Your task to perform on an android device: refresh tabs in the chrome app Image 0: 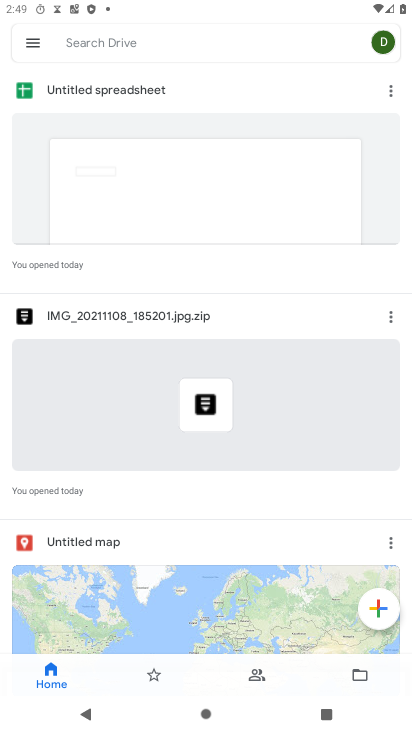
Step 0: press home button
Your task to perform on an android device: refresh tabs in the chrome app Image 1: 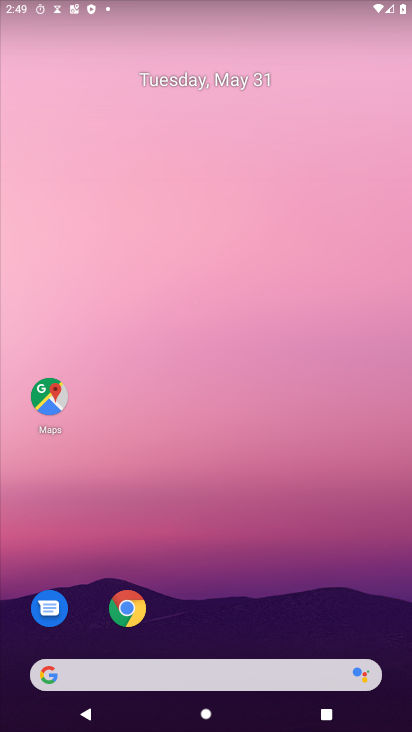
Step 1: click (125, 604)
Your task to perform on an android device: refresh tabs in the chrome app Image 2: 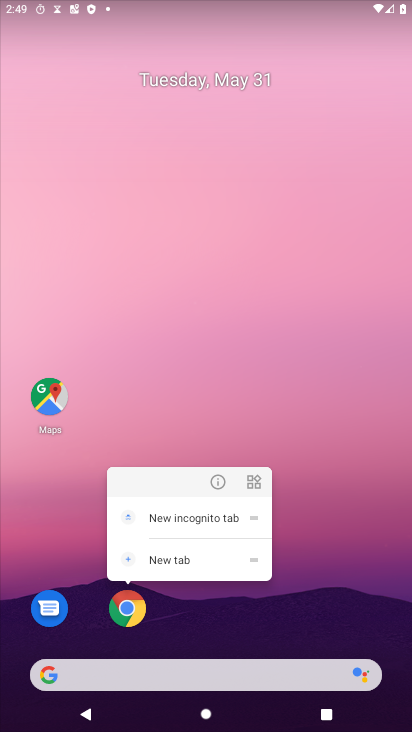
Step 2: click (124, 603)
Your task to perform on an android device: refresh tabs in the chrome app Image 3: 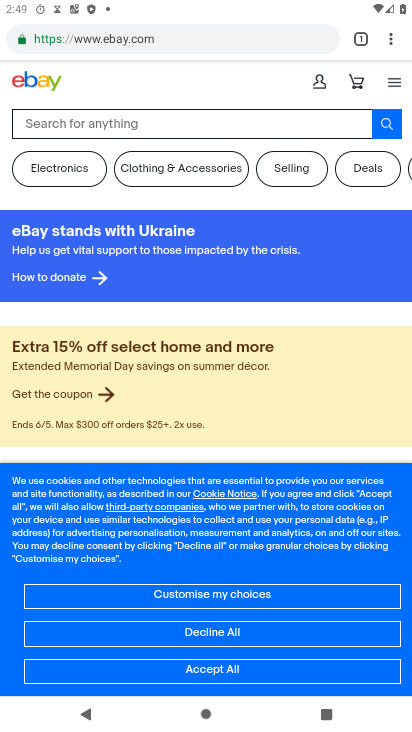
Step 3: click (391, 34)
Your task to perform on an android device: refresh tabs in the chrome app Image 4: 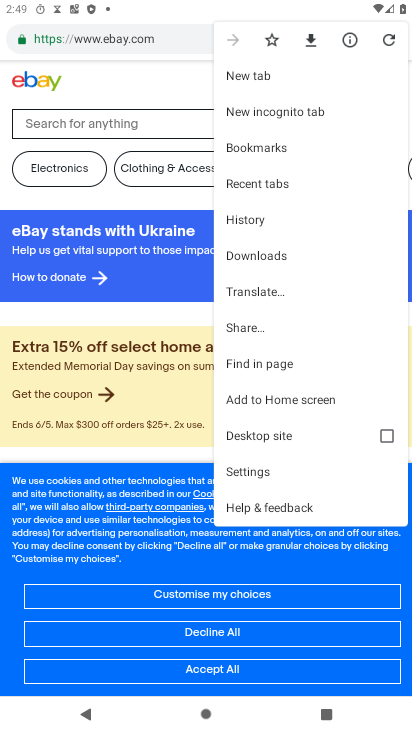
Step 4: click (392, 36)
Your task to perform on an android device: refresh tabs in the chrome app Image 5: 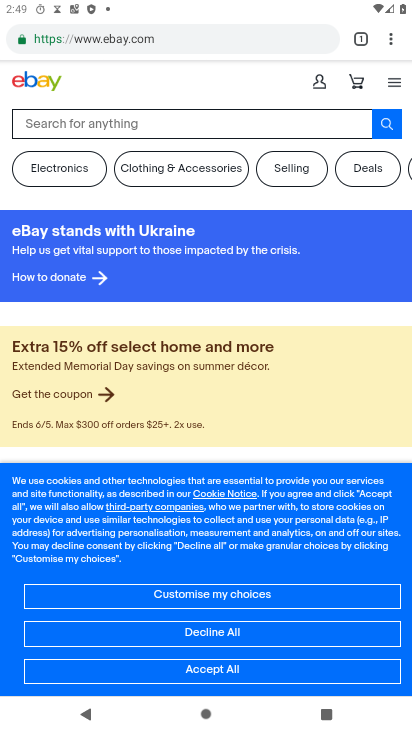
Step 5: task complete